Your task to perform on an android device: Open the map Image 0: 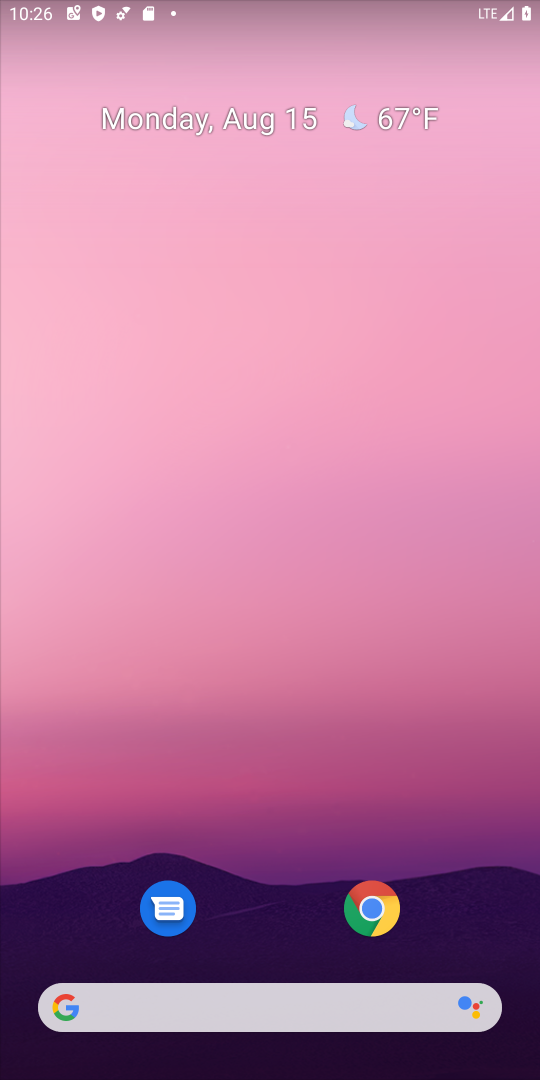
Step 0: click (385, 901)
Your task to perform on an android device: Open the map Image 1: 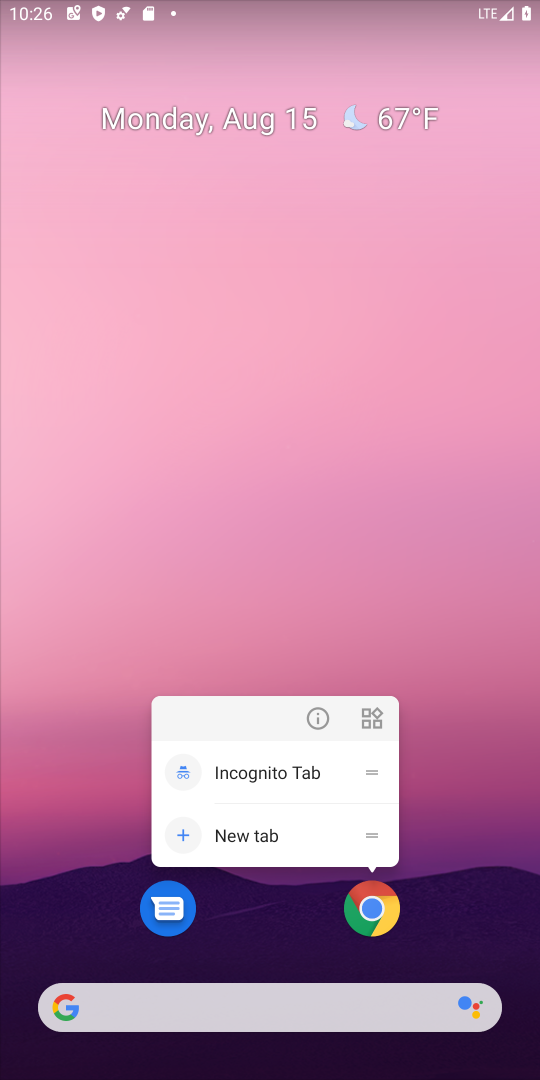
Step 1: drag from (234, 941) to (216, 141)
Your task to perform on an android device: Open the map Image 2: 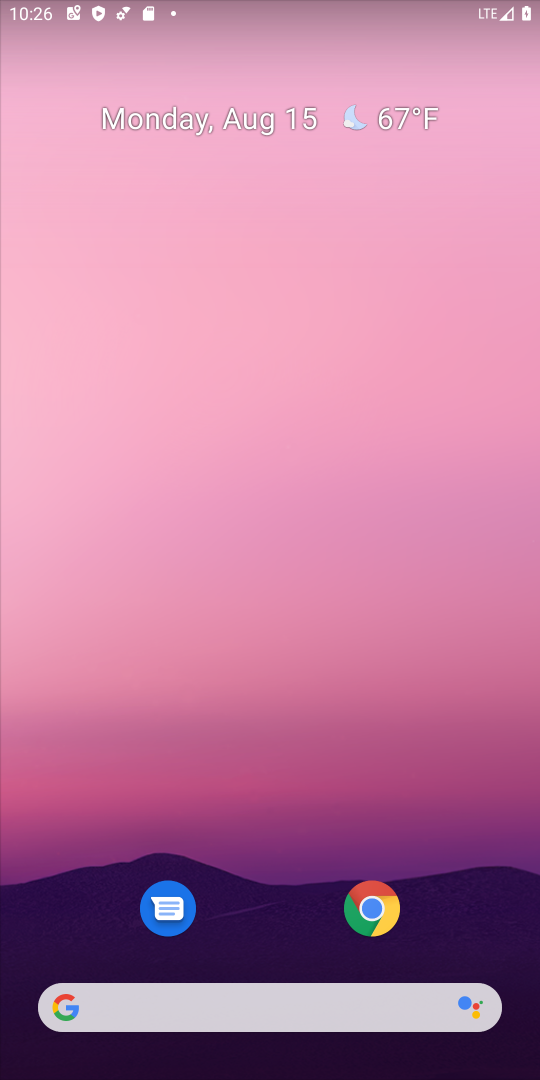
Step 2: drag from (280, 917) to (334, 24)
Your task to perform on an android device: Open the map Image 3: 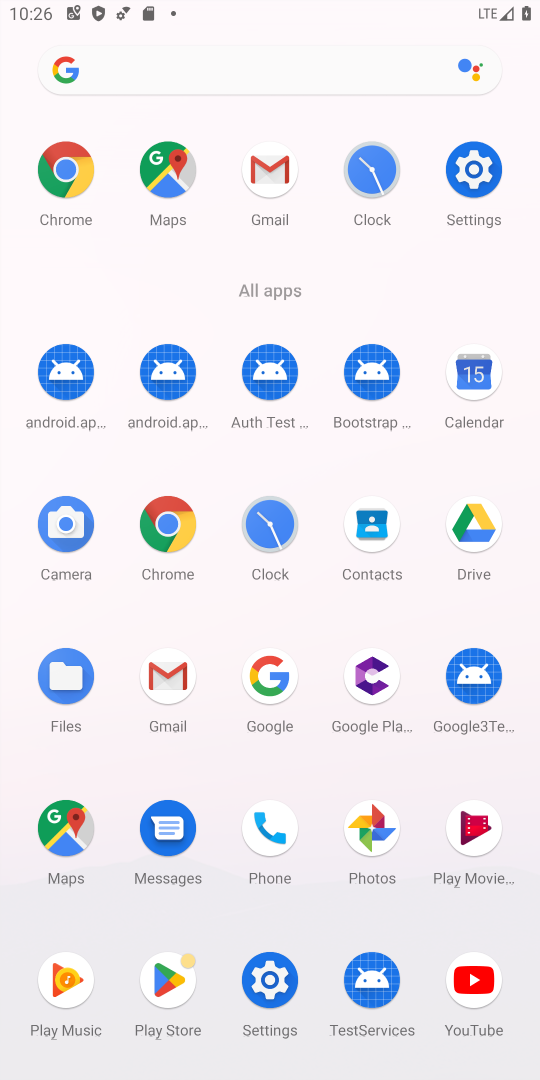
Step 3: click (166, 240)
Your task to perform on an android device: Open the map Image 4: 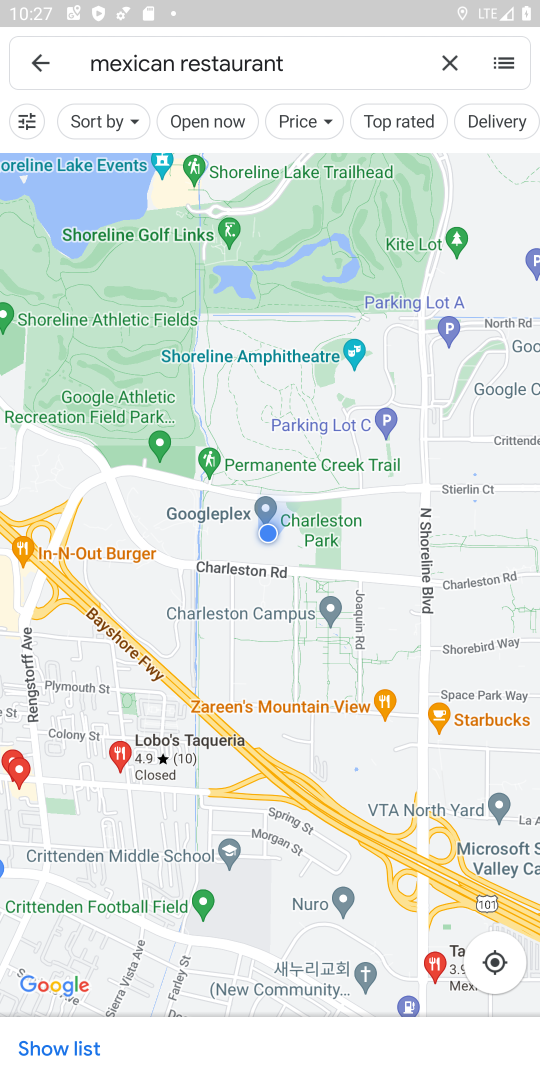
Step 4: task complete